Your task to perform on an android device: open app "Microsoft Outlook" (install if not already installed) Image 0: 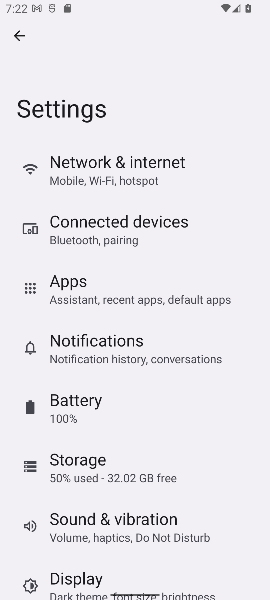
Step 0: press home button
Your task to perform on an android device: open app "Microsoft Outlook" (install if not already installed) Image 1: 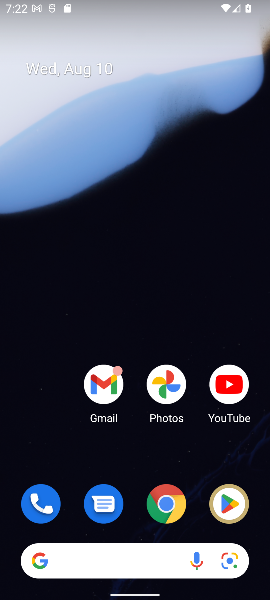
Step 1: drag from (132, 546) to (135, 138)
Your task to perform on an android device: open app "Microsoft Outlook" (install if not already installed) Image 2: 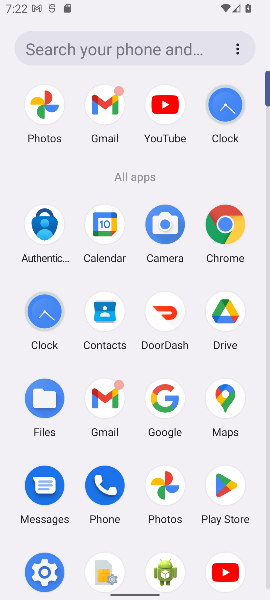
Step 2: click (238, 492)
Your task to perform on an android device: open app "Microsoft Outlook" (install if not already installed) Image 3: 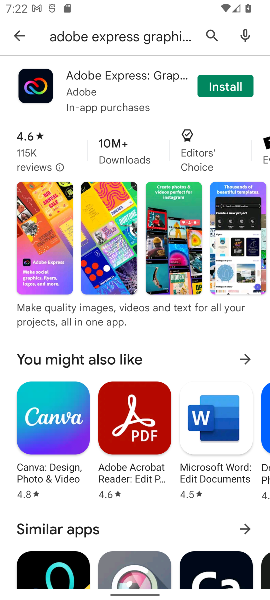
Step 3: click (206, 31)
Your task to perform on an android device: open app "Microsoft Outlook" (install if not already installed) Image 4: 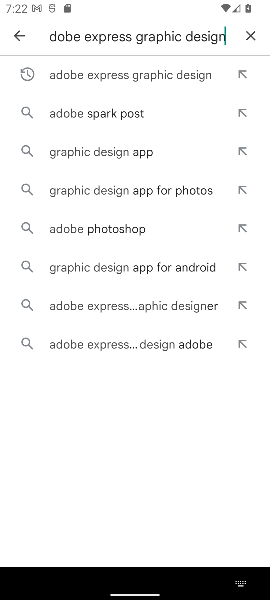
Step 4: click (248, 34)
Your task to perform on an android device: open app "Microsoft Outlook" (install if not already installed) Image 5: 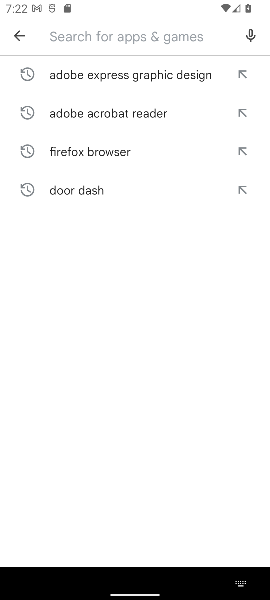
Step 5: type "Microsoft Outlook"
Your task to perform on an android device: open app "Microsoft Outlook" (install if not already installed) Image 6: 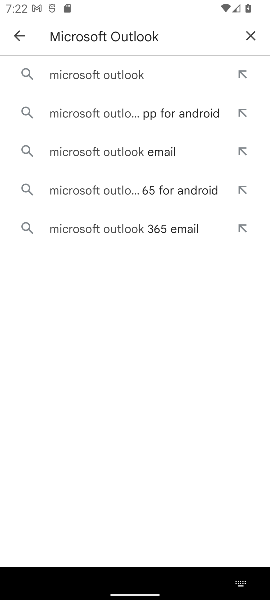
Step 6: click (111, 69)
Your task to perform on an android device: open app "Microsoft Outlook" (install if not already installed) Image 7: 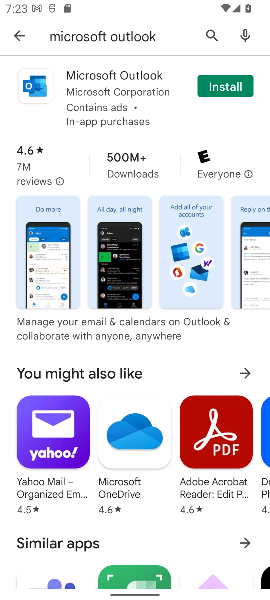
Step 7: click (203, 85)
Your task to perform on an android device: open app "Microsoft Outlook" (install if not already installed) Image 8: 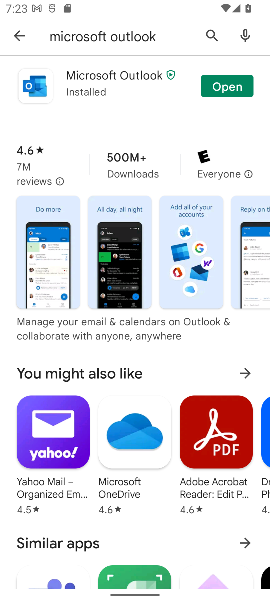
Step 8: click (231, 85)
Your task to perform on an android device: open app "Microsoft Outlook" (install if not already installed) Image 9: 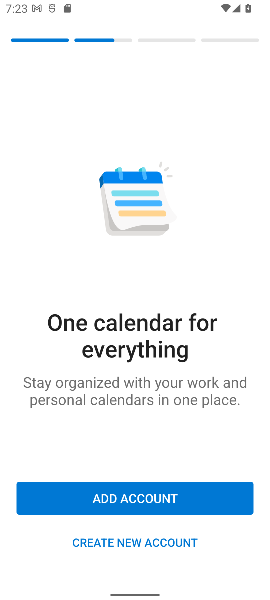
Step 9: task complete